Your task to perform on an android device: open the mobile data screen to see how much data has been used Image 0: 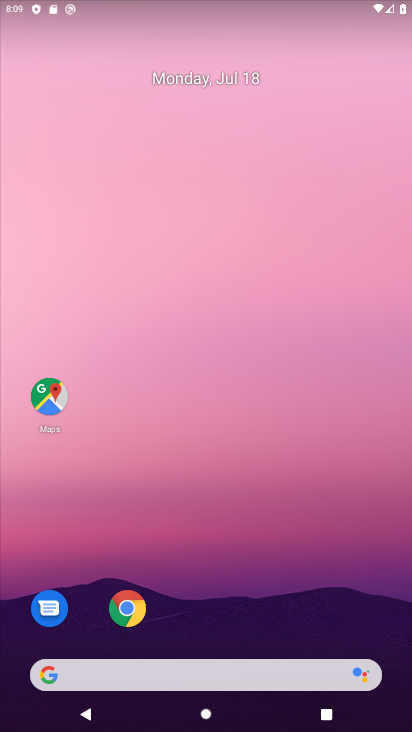
Step 0: drag from (248, 713) to (231, 6)
Your task to perform on an android device: open the mobile data screen to see how much data has been used Image 1: 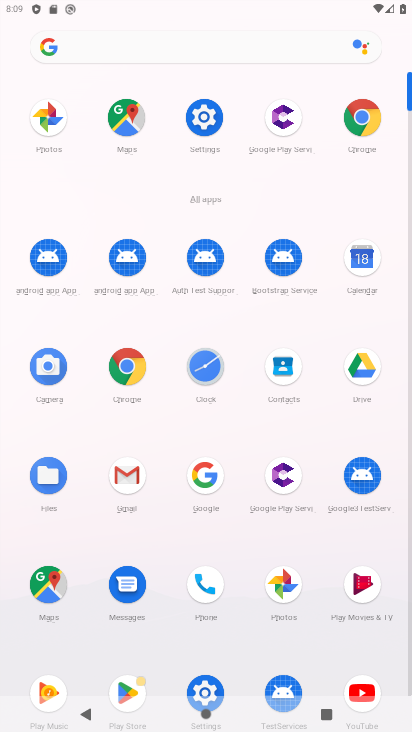
Step 1: click (202, 120)
Your task to perform on an android device: open the mobile data screen to see how much data has been used Image 2: 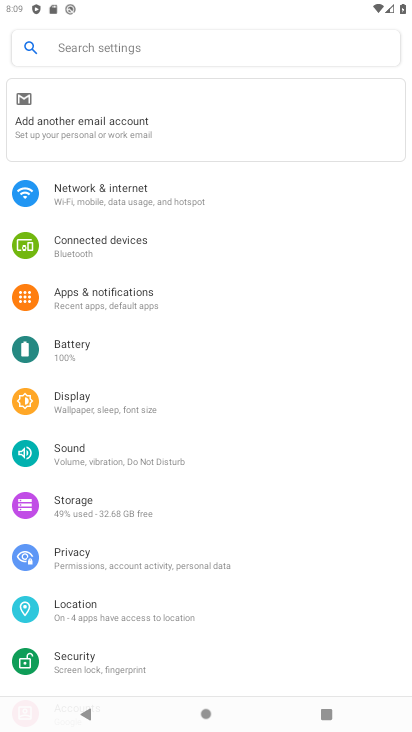
Step 2: click (91, 190)
Your task to perform on an android device: open the mobile data screen to see how much data has been used Image 3: 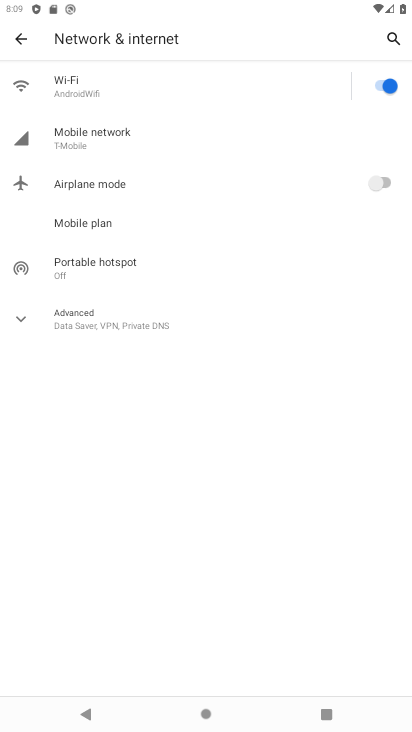
Step 3: click (82, 140)
Your task to perform on an android device: open the mobile data screen to see how much data has been used Image 4: 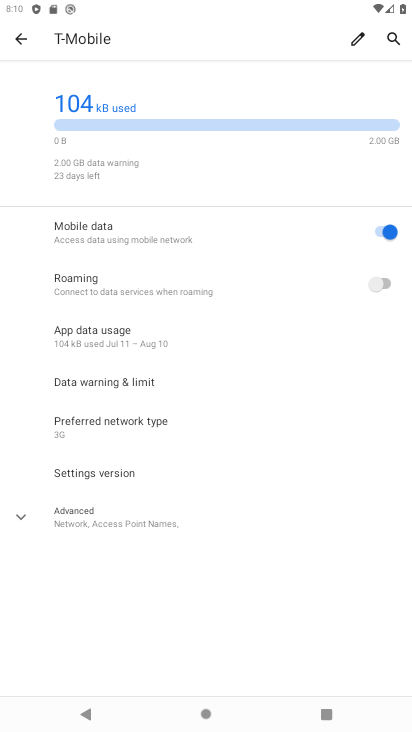
Step 4: click (91, 336)
Your task to perform on an android device: open the mobile data screen to see how much data has been used Image 5: 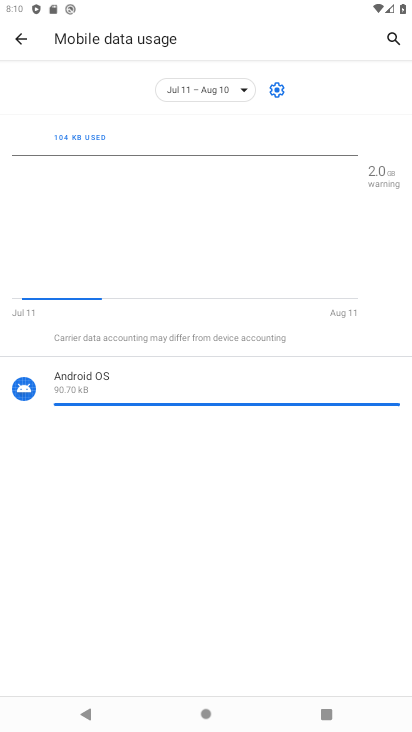
Step 5: task complete